Your task to perform on an android device: turn off notifications in google photos Image 0: 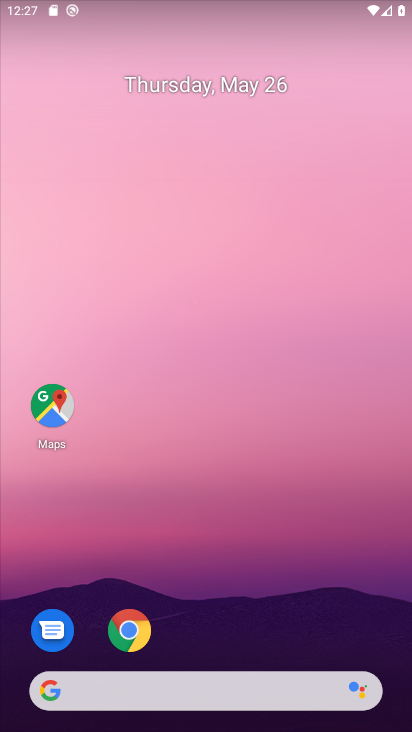
Step 0: press home button
Your task to perform on an android device: turn off notifications in google photos Image 1: 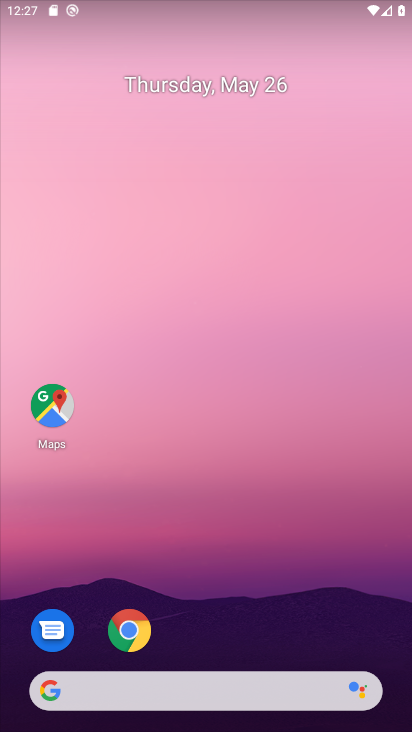
Step 1: drag from (247, 402) to (267, 131)
Your task to perform on an android device: turn off notifications in google photos Image 2: 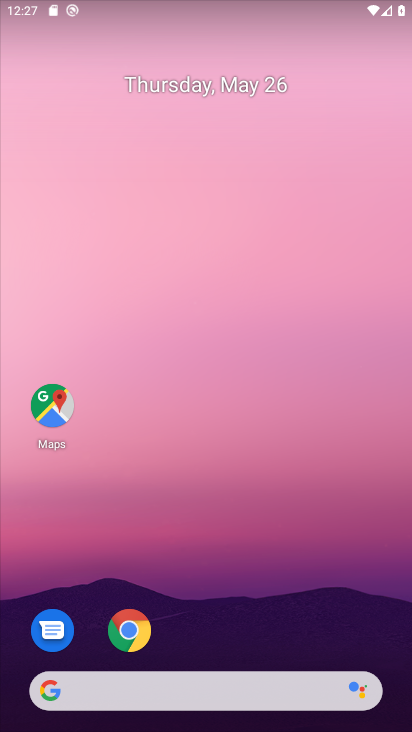
Step 2: drag from (216, 647) to (234, 46)
Your task to perform on an android device: turn off notifications in google photos Image 3: 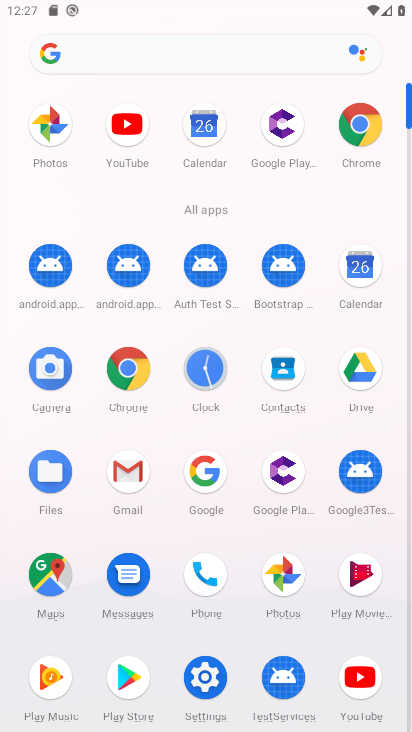
Step 3: click (49, 122)
Your task to perform on an android device: turn off notifications in google photos Image 4: 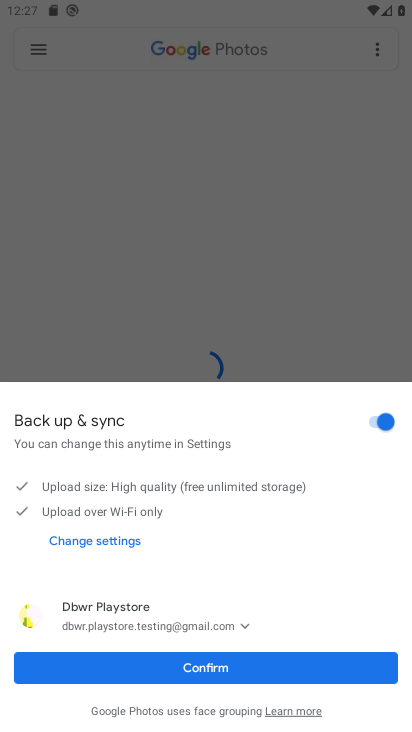
Step 4: click (203, 669)
Your task to perform on an android device: turn off notifications in google photos Image 5: 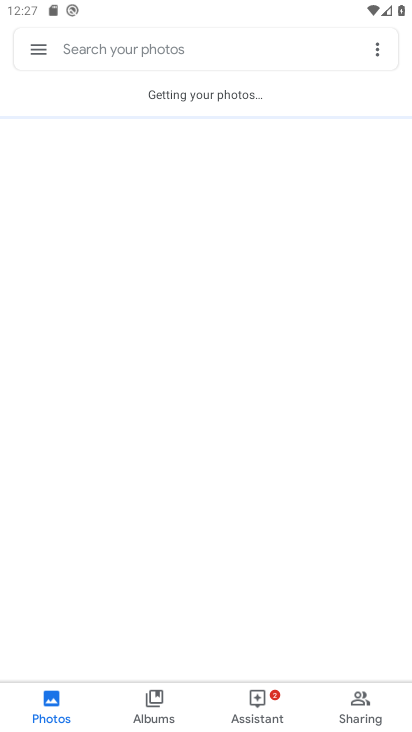
Step 5: click (34, 46)
Your task to perform on an android device: turn off notifications in google photos Image 6: 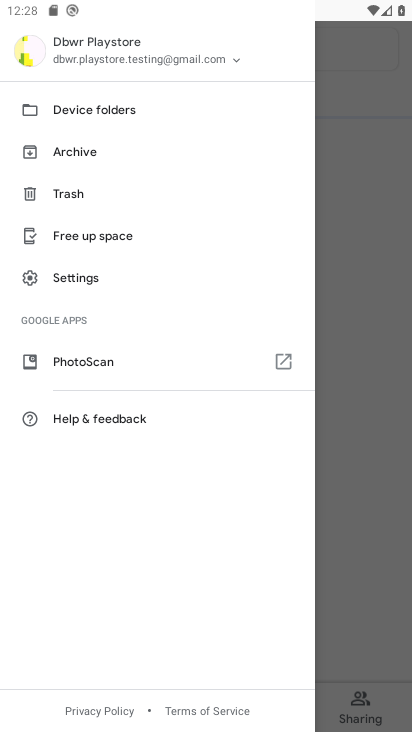
Step 6: click (97, 272)
Your task to perform on an android device: turn off notifications in google photos Image 7: 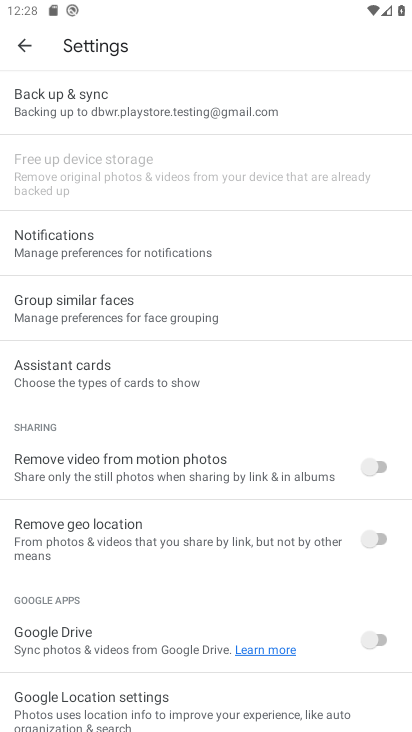
Step 7: click (117, 239)
Your task to perform on an android device: turn off notifications in google photos Image 8: 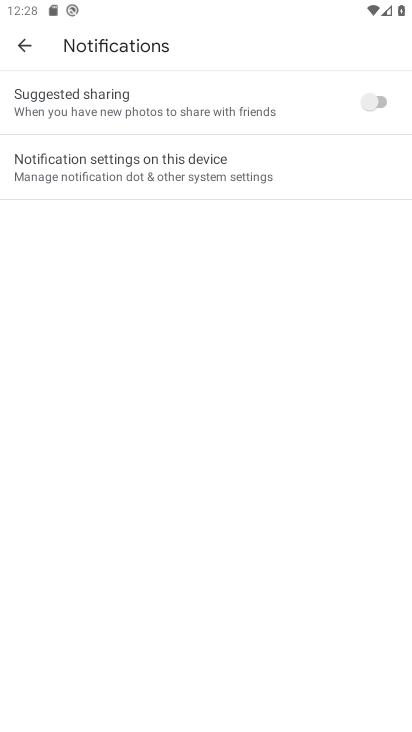
Step 8: click (274, 163)
Your task to perform on an android device: turn off notifications in google photos Image 9: 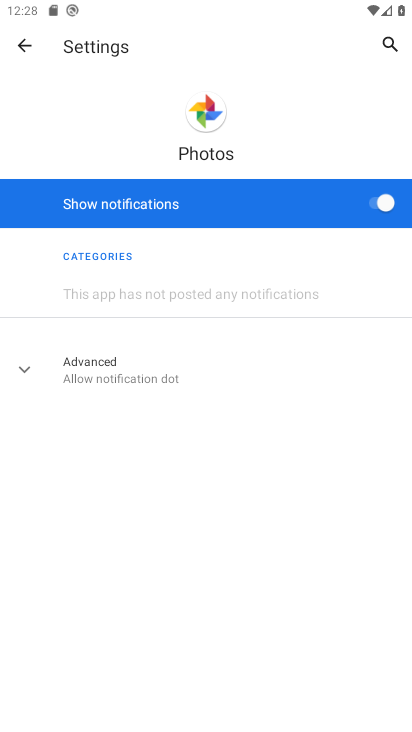
Step 9: click (374, 200)
Your task to perform on an android device: turn off notifications in google photos Image 10: 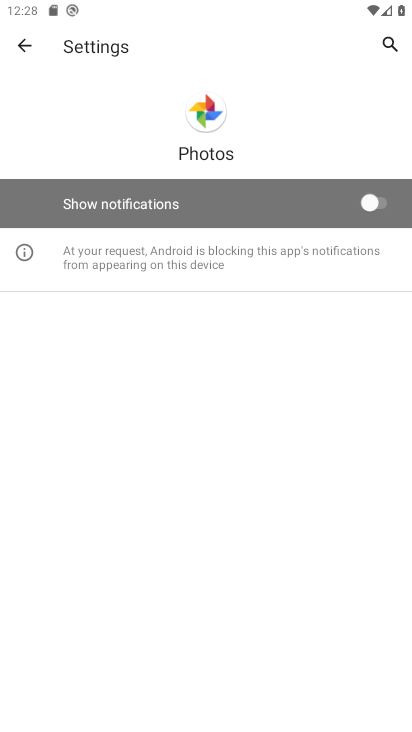
Step 10: task complete